Your task to perform on an android device: change text size in settings app Image 0: 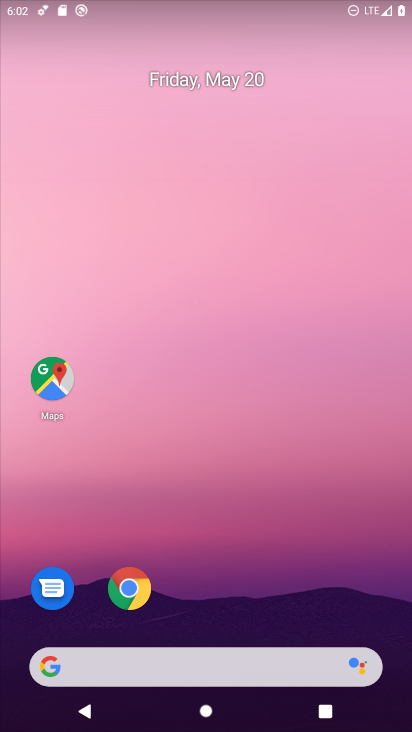
Step 0: drag from (217, 592) to (270, 53)
Your task to perform on an android device: change text size in settings app Image 1: 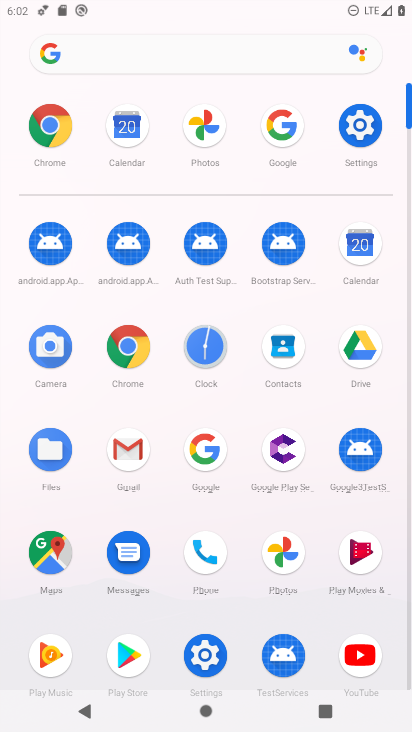
Step 1: click (364, 124)
Your task to perform on an android device: change text size in settings app Image 2: 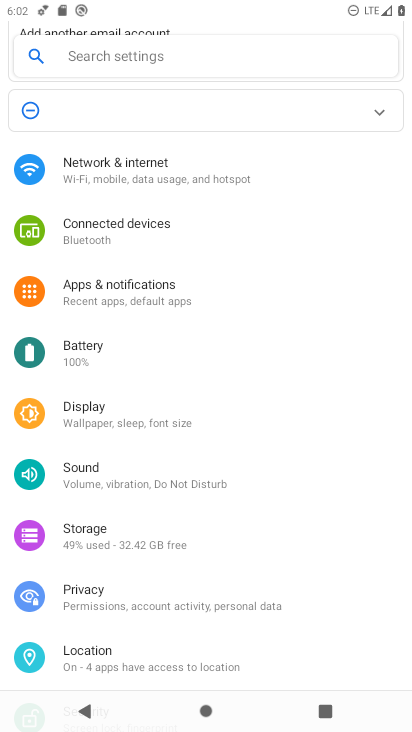
Step 2: click (97, 429)
Your task to perform on an android device: change text size in settings app Image 3: 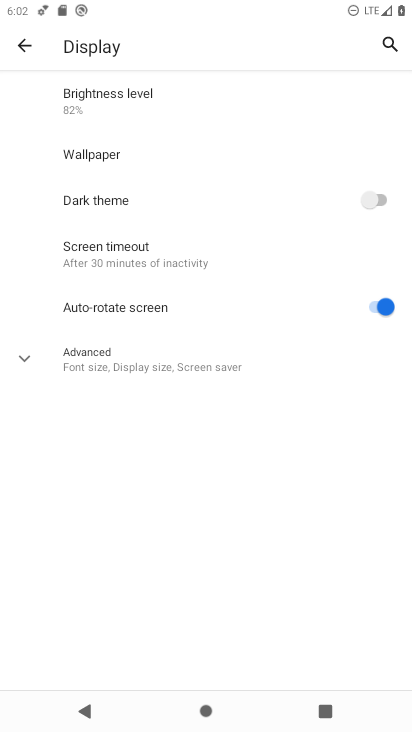
Step 3: click (107, 366)
Your task to perform on an android device: change text size in settings app Image 4: 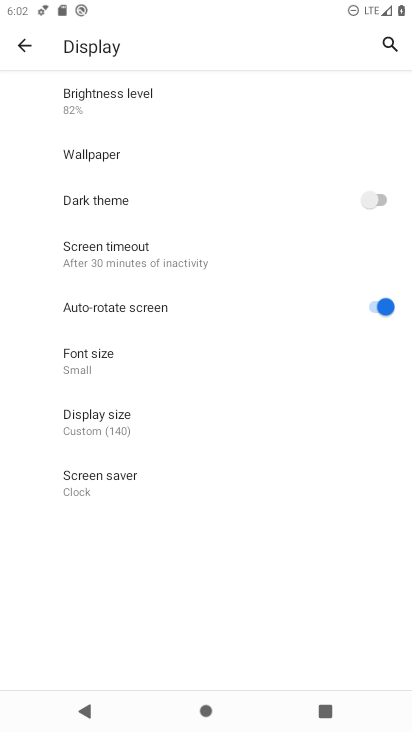
Step 4: click (107, 374)
Your task to perform on an android device: change text size in settings app Image 5: 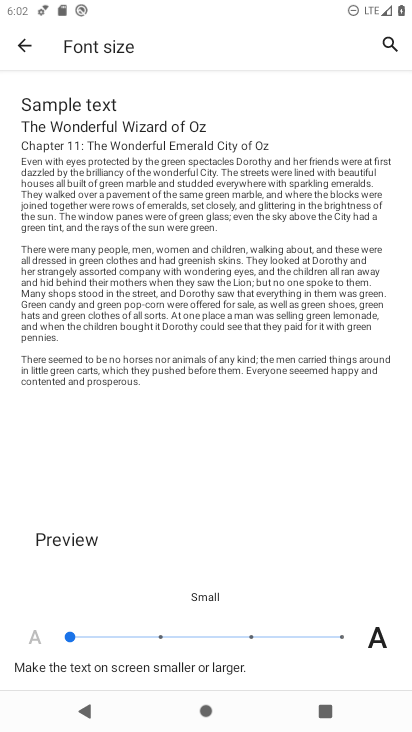
Step 5: click (158, 640)
Your task to perform on an android device: change text size in settings app Image 6: 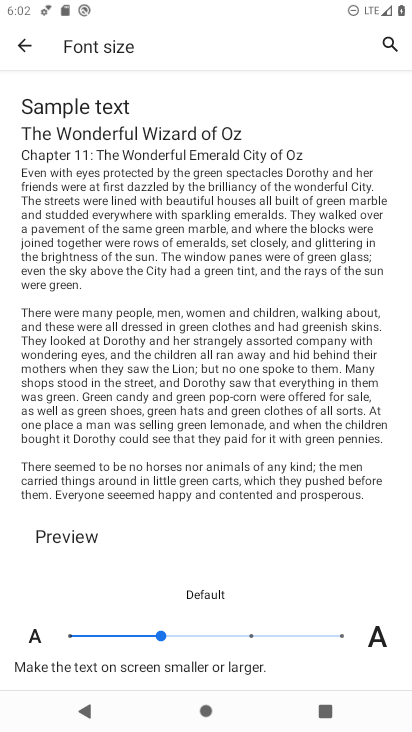
Step 6: task complete